Your task to perform on an android device: turn on notifications settings in the gmail app Image 0: 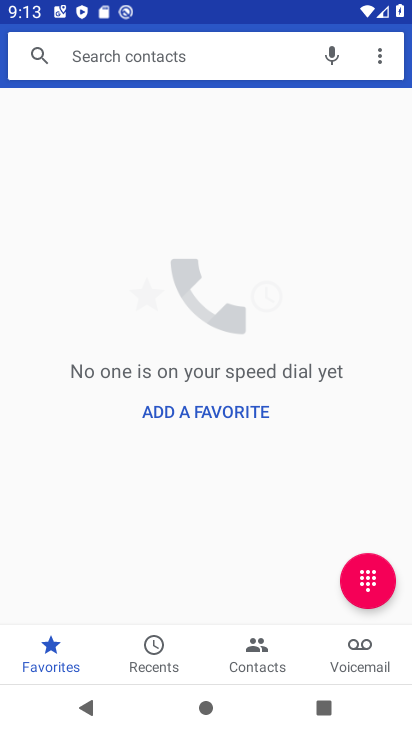
Step 0: press home button
Your task to perform on an android device: turn on notifications settings in the gmail app Image 1: 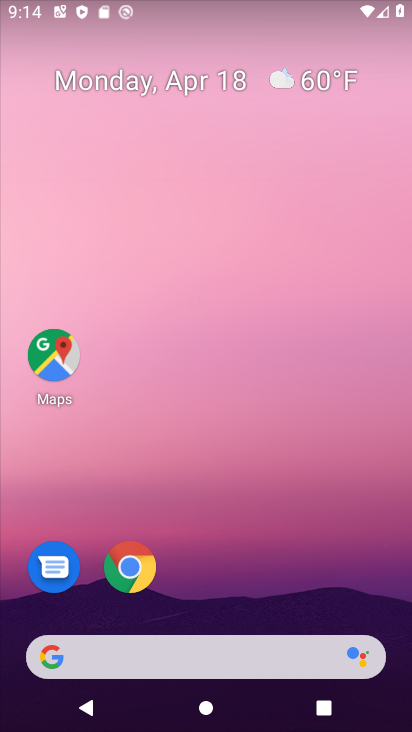
Step 1: drag from (190, 387) to (411, 426)
Your task to perform on an android device: turn on notifications settings in the gmail app Image 2: 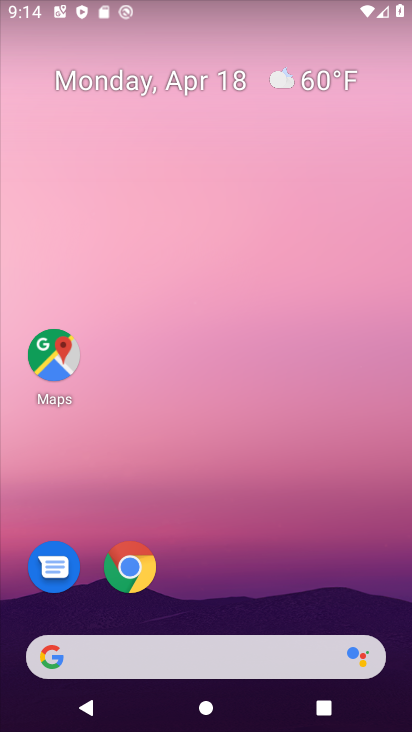
Step 2: drag from (197, 581) to (240, 24)
Your task to perform on an android device: turn on notifications settings in the gmail app Image 3: 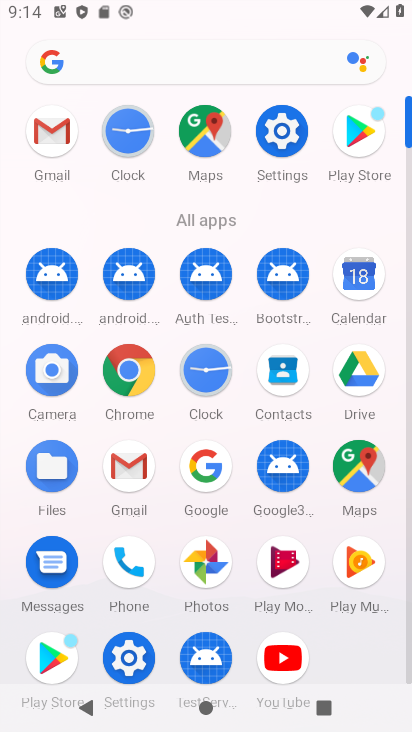
Step 3: click (141, 497)
Your task to perform on an android device: turn on notifications settings in the gmail app Image 4: 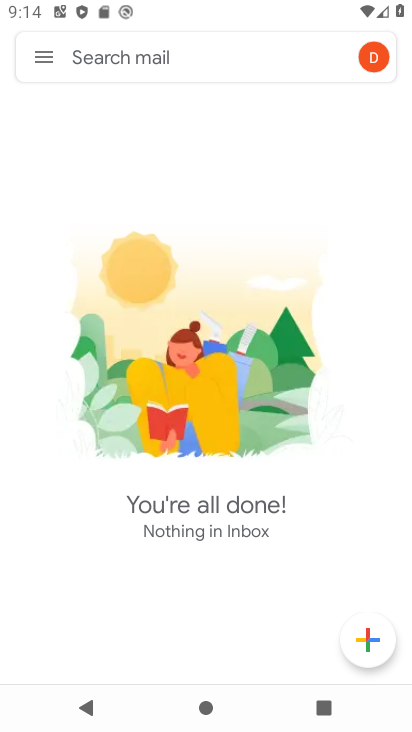
Step 4: click (40, 57)
Your task to perform on an android device: turn on notifications settings in the gmail app Image 5: 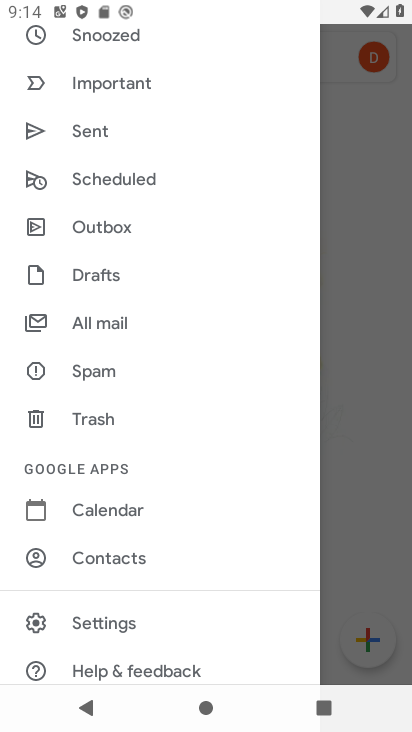
Step 5: click (133, 633)
Your task to perform on an android device: turn on notifications settings in the gmail app Image 6: 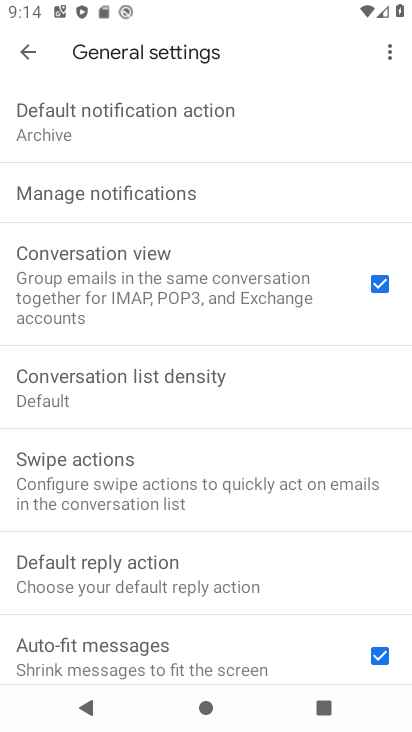
Step 6: click (156, 188)
Your task to perform on an android device: turn on notifications settings in the gmail app Image 7: 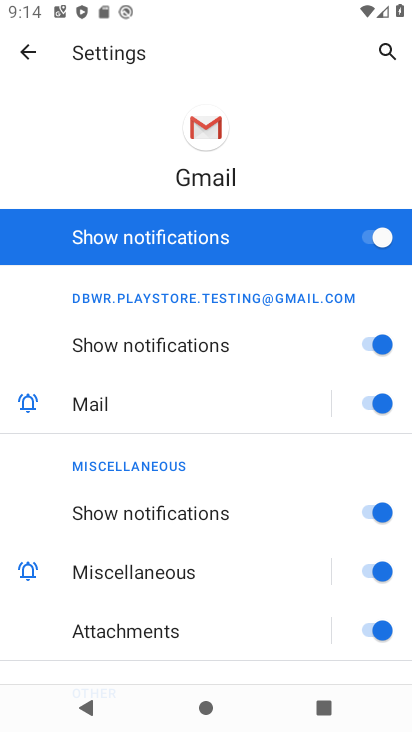
Step 7: task complete